Your task to perform on an android device: Go to ESPN.com Image 0: 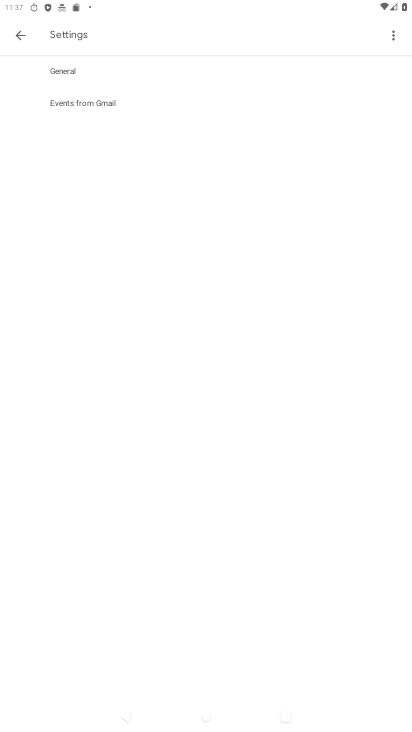
Step 0: press home button
Your task to perform on an android device: Go to ESPN.com Image 1: 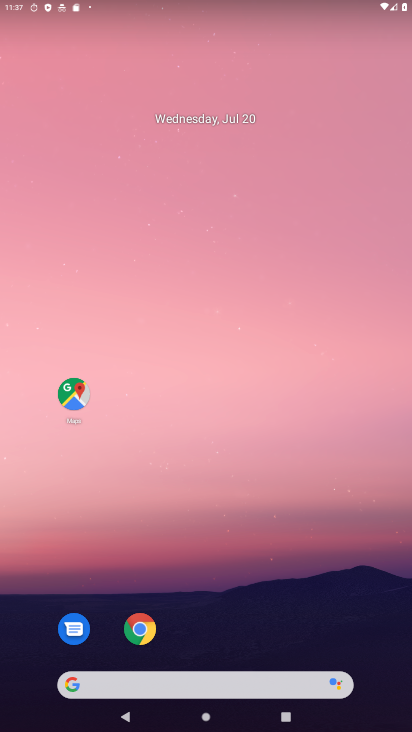
Step 1: drag from (232, 545) to (231, 62)
Your task to perform on an android device: Go to ESPN.com Image 2: 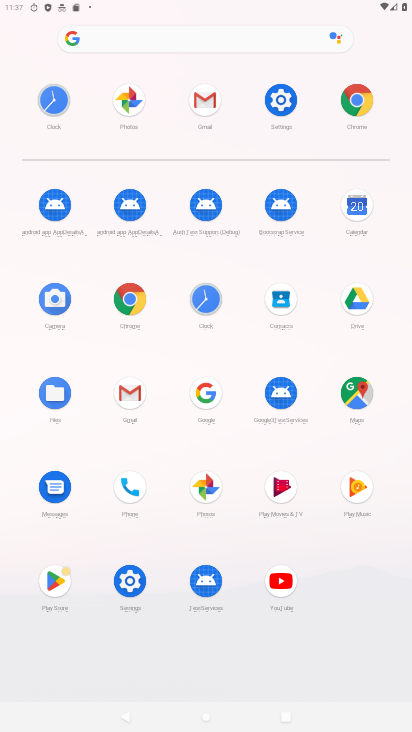
Step 2: click (130, 297)
Your task to perform on an android device: Go to ESPN.com Image 3: 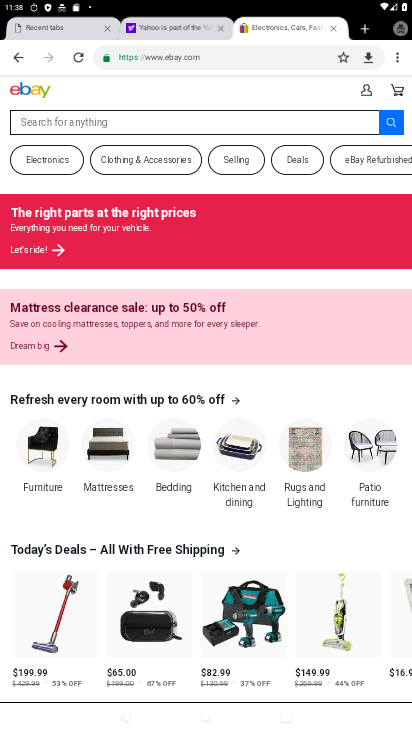
Step 3: task complete